Your task to perform on an android device: Open Chrome and go to the settings page Image 0: 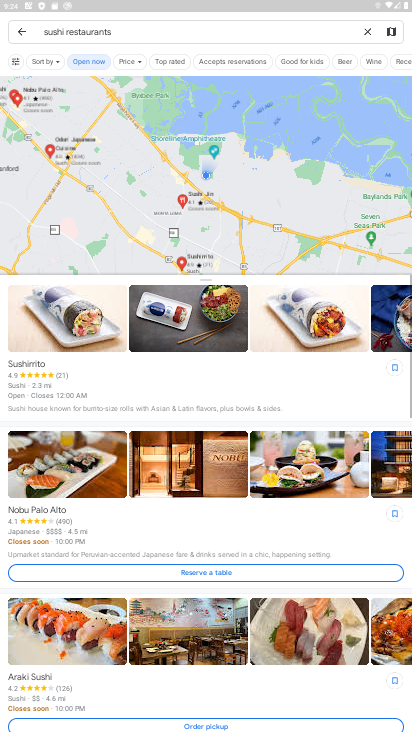
Step 0: press home button
Your task to perform on an android device: Open Chrome and go to the settings page Image 1: 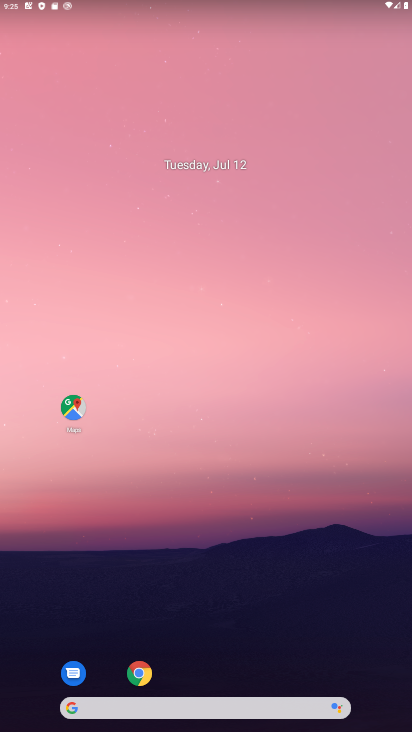
Step 1: click (136, 680)
Your task to perform on an android device: Open Chrome and go to the settings page Image 2: 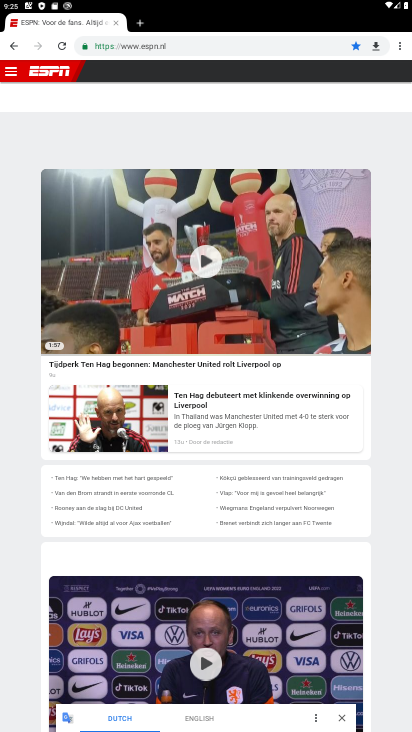
Step 2: click (402, 47)
Your task to perform on an android device: Open Chrome and go to the settings page Image 3: 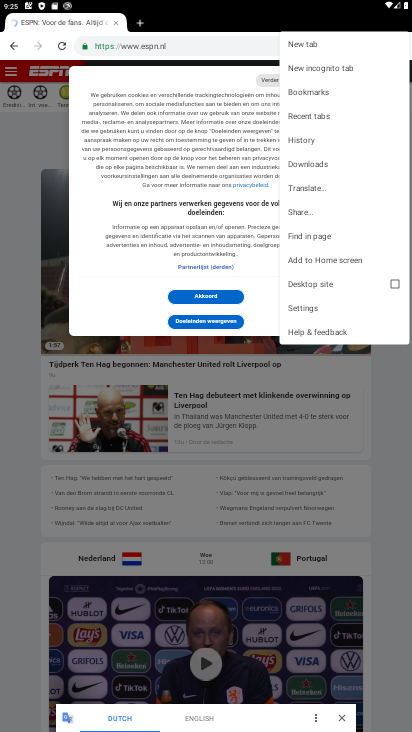
Step 3: click (311, 310)
Your task to perform on an android device: Open Chrome and go to the settings page Image 4: 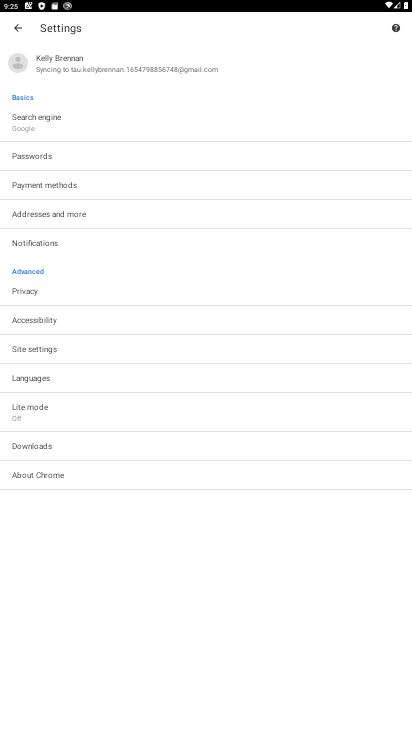
Step 4: task complete